Your task to perform on an android device: Open accessibility settings Image 0: 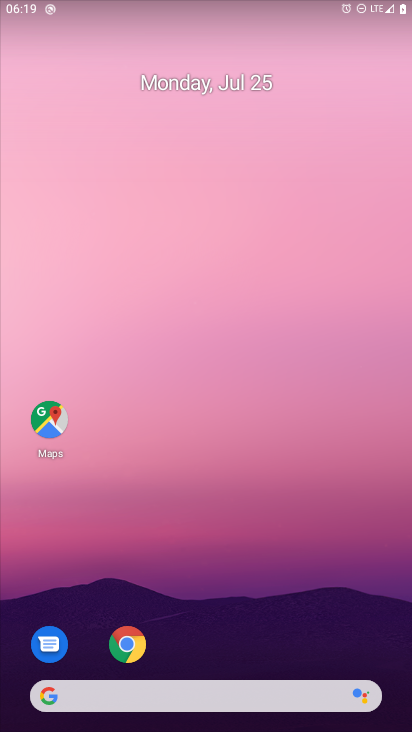
Step 0: press home button
Your task to perform on an android device: Open accessibility settings Image 1: 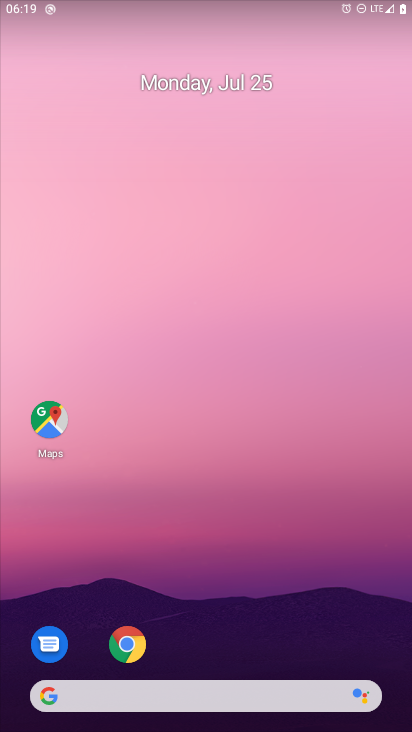
Step 1: drag from (253, 655) to (238, 153)
Your task to perform on an android device: Open accessibility settings Image 2: 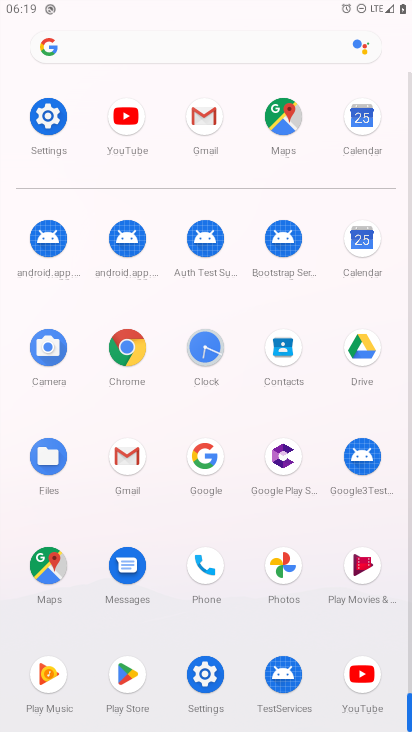
Step 2: click (52, 122)
Your task to perform on an android device: Open accessibility settings Image 3: 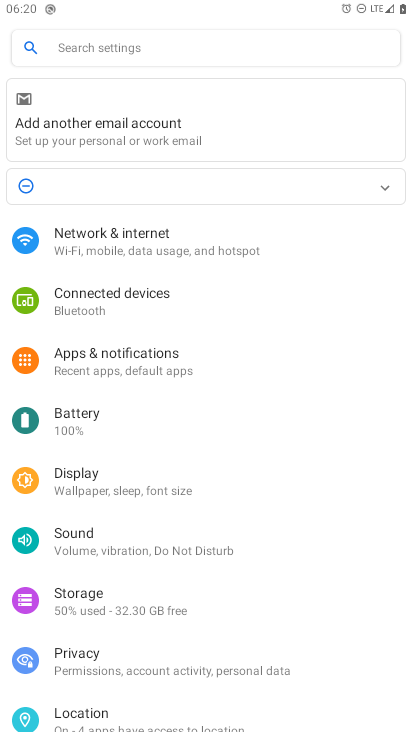
Step 3: drag from (272, 636) to (233, 221)
Your task to perform on an android device: Open accessibility settings Image 4: 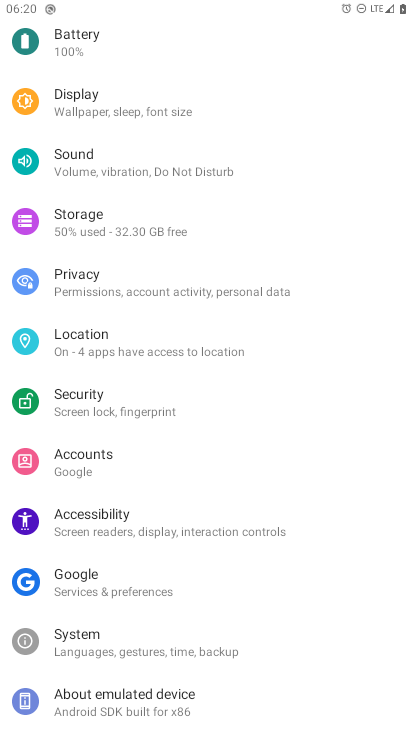
Step 4: click (105, 519)
Your task to perform on an android device: Open accessibility settings Image 5: 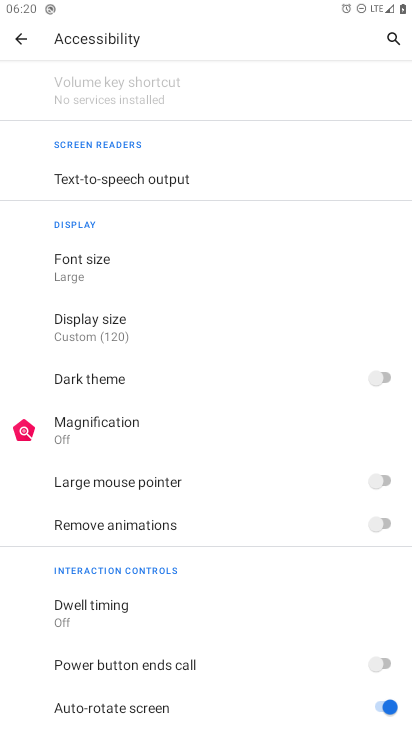
Step 5: task complete